Your task to perform on an android device: check battery use Image 0: 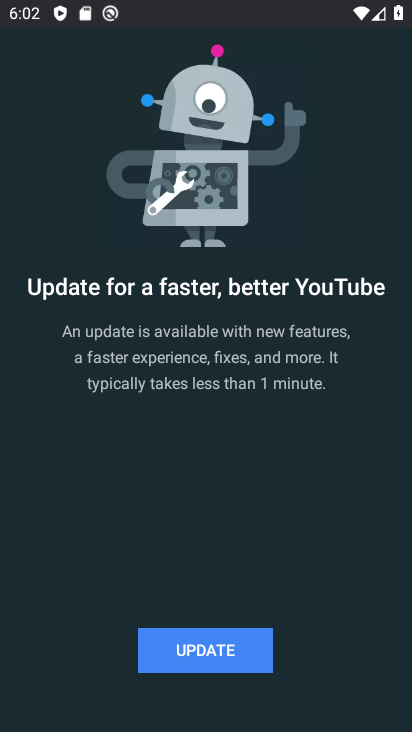
Step 0: press home button
Your task to perform on an android device: check battery use Image 1: 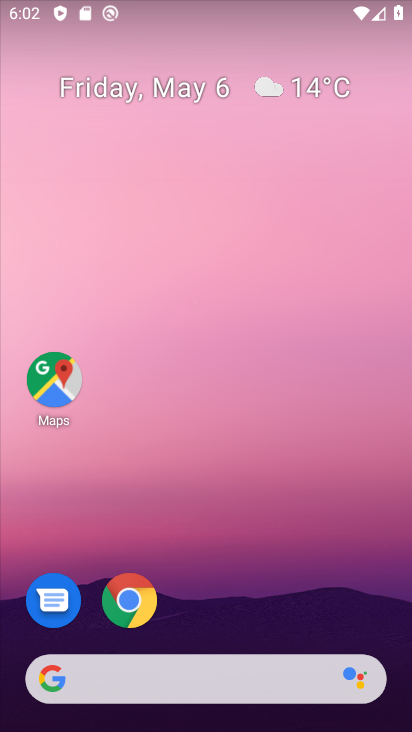
Step 1: drag from (231, 579) to (228, 7)
Your task to perform on an android device: check battery use Image 2: 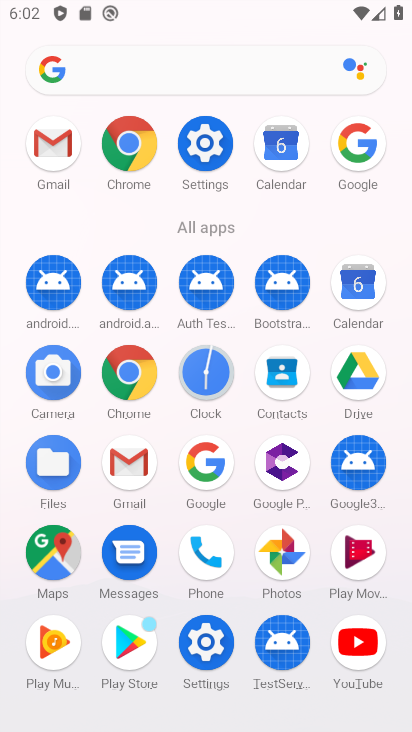
Step 2: click (203, 143)
Your task to perform on an android device: check battery use Image 3: 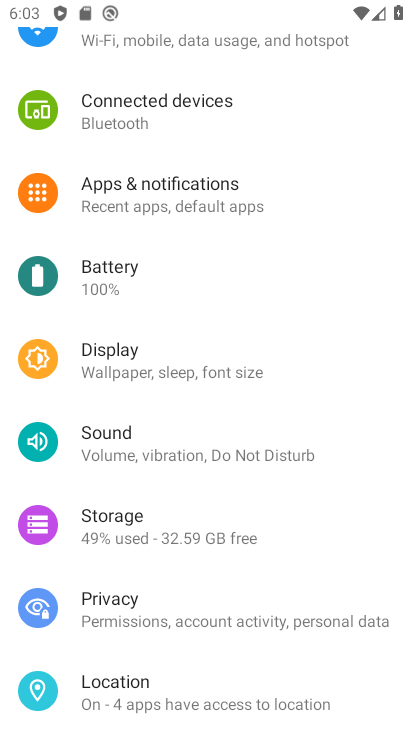
Step 3: click (136, 266)
Your task to perform on an android device: check battery use Image 4: 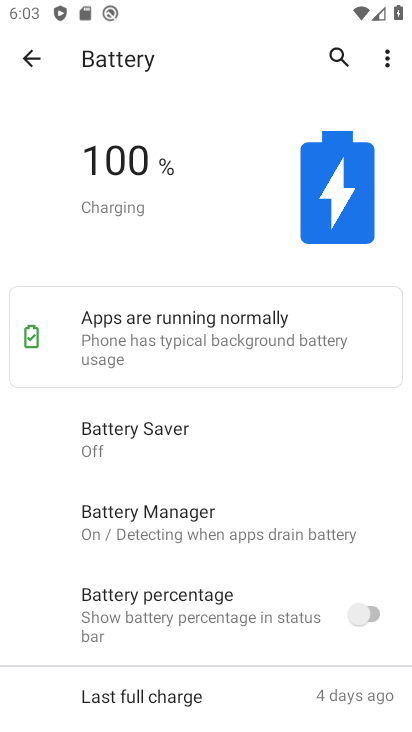
Step 4: click (387, 50)
Your task to perform on an android device: check battery use Image 5: 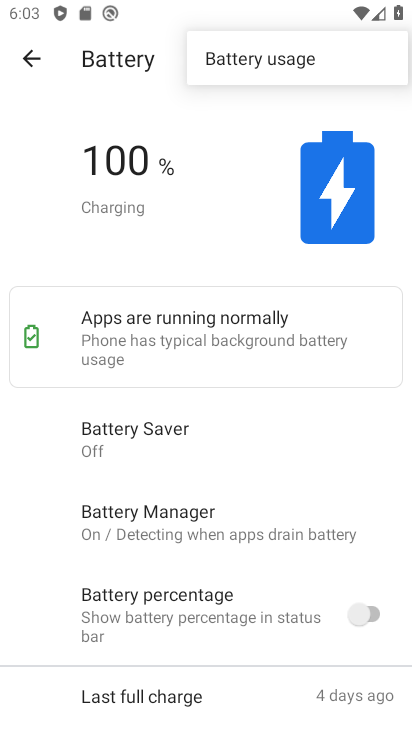
Step 5: click (242, 69)
Your task to perform on an android device: check battery use Image 6: 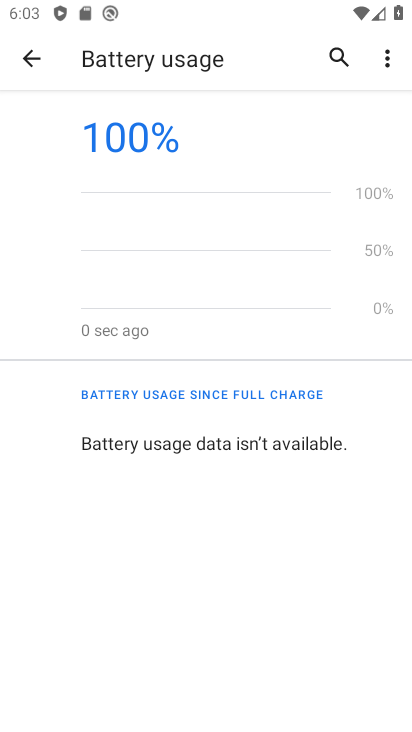
Step 6: task complete